Your task to perform on an android device: check data usage Image 0: 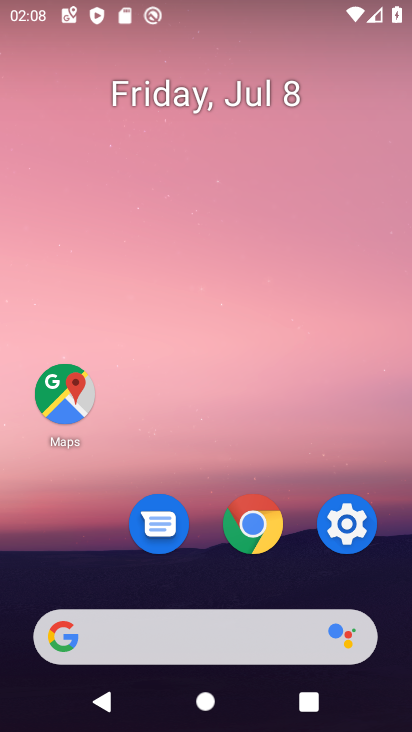
Step 0: click (342, 515)
Your task to perform on an android device: check data usage Image 1: 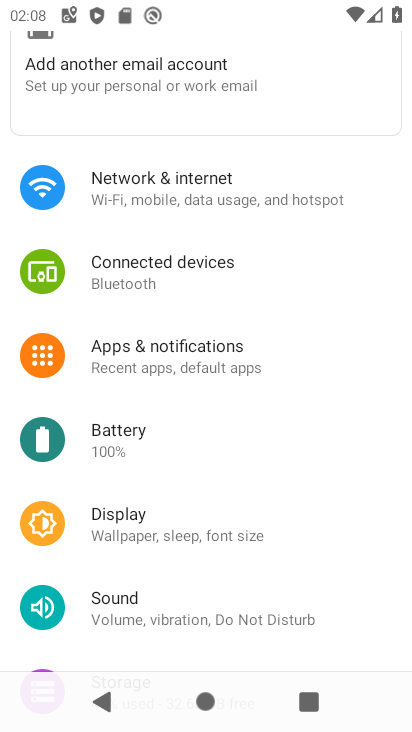
Step 1: drag from (213, 360) to (152, 503)
Your task to perform on an android device: check data usage Image 2: 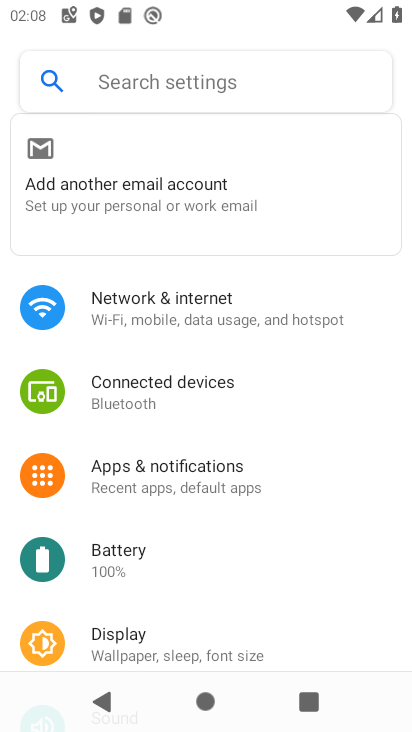
Step 2: click (123, 84)
Your task to perform on an android device: check data usage Image 3: 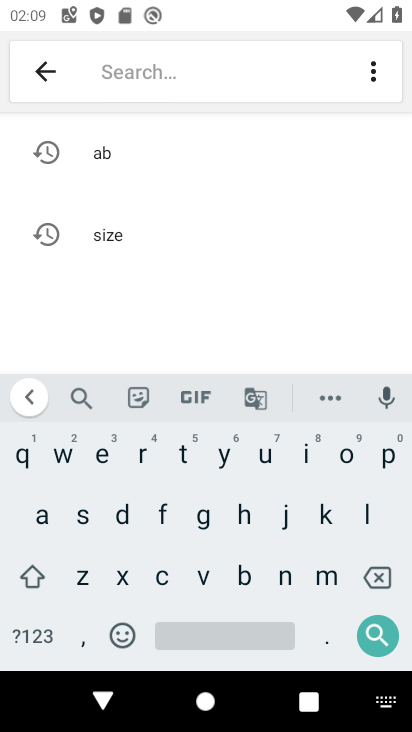
Step 3: click (123, 509)
Your task to perform on an android device: check data usage Image 4: 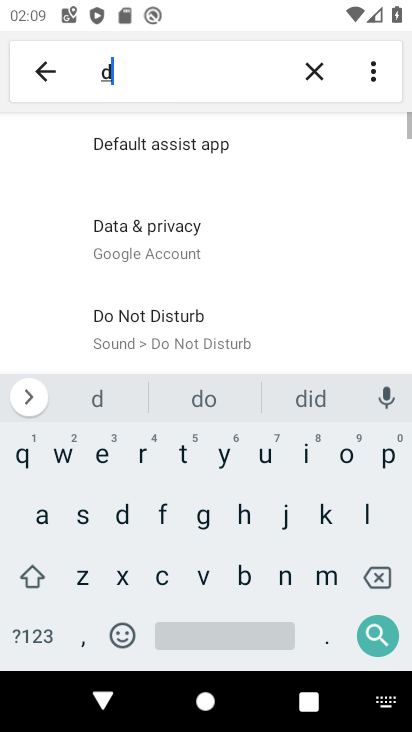
Step 4: click (42, 516)
Your task to perform on an android device: check data usage Image 5: 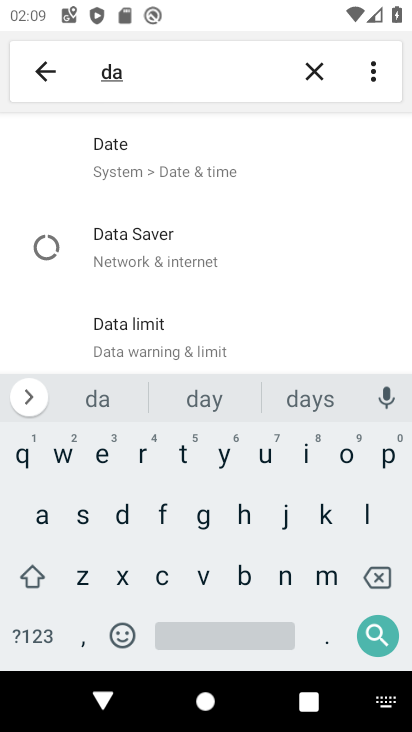
Step 5: click (184, 448)
Your task to perform on an android device: check data usage Image 6: 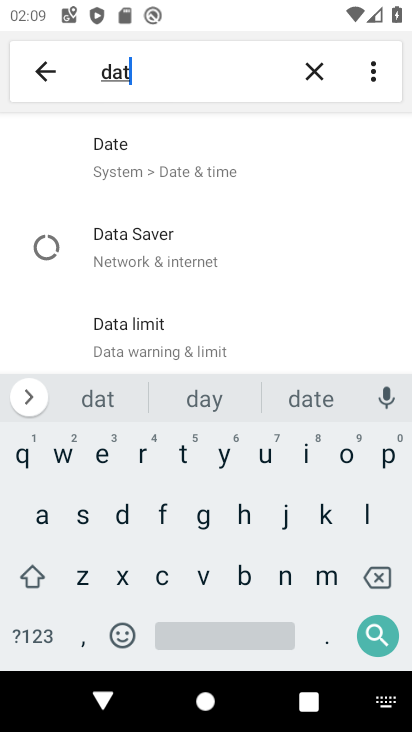
Step 6: click (42, 514)
Your task to perform on an android device: check data usage Image 7: 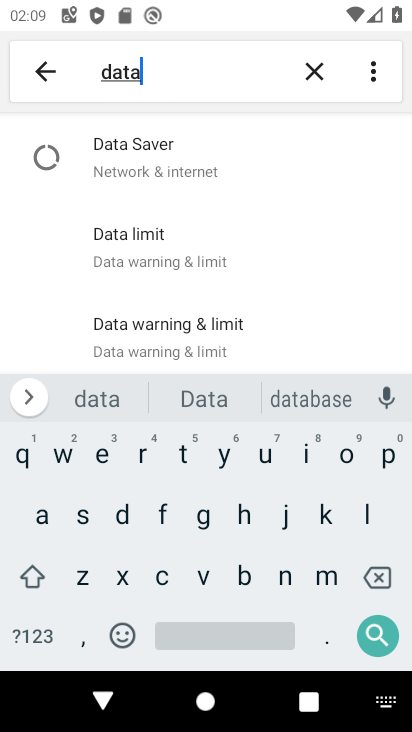
Step 7: click (199, 398)
Your task to perform on an android device: check data usage Image 8: 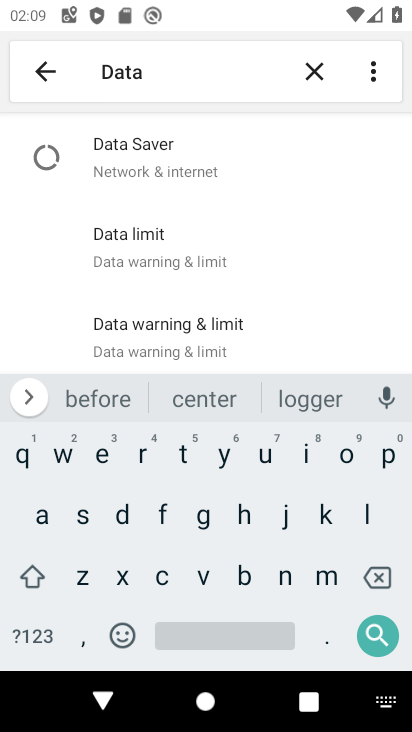
Step 8: click (259, 457)
Your task to perform on an android device: check data usage Image 9: 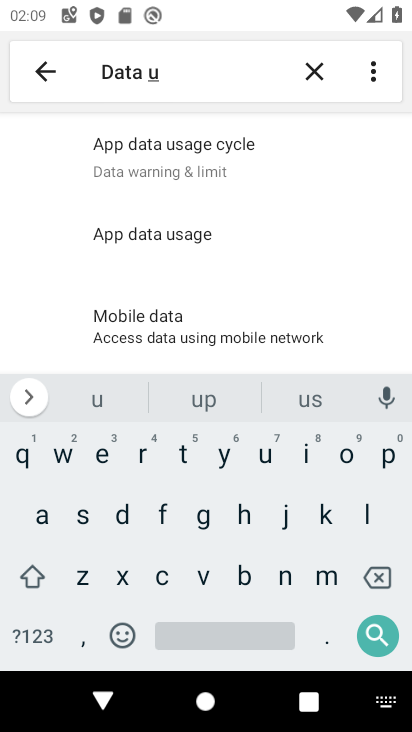
Step 9: click (199, 241)
Your task to perform on an android device: check data usage Image 10: 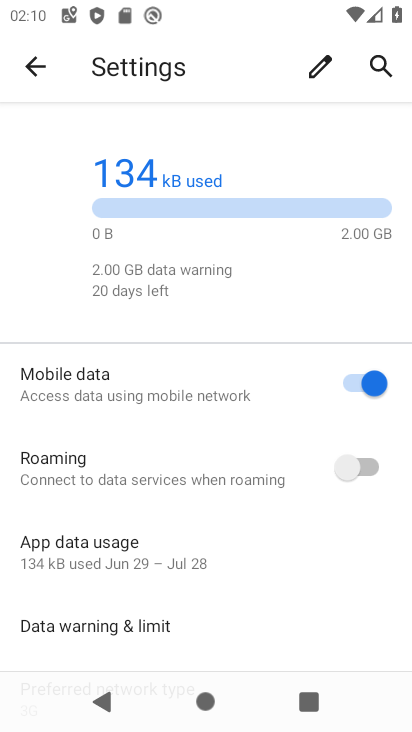
Step 10: task complete